Your task to perform on an android device: open device folders in google photos Image 0: 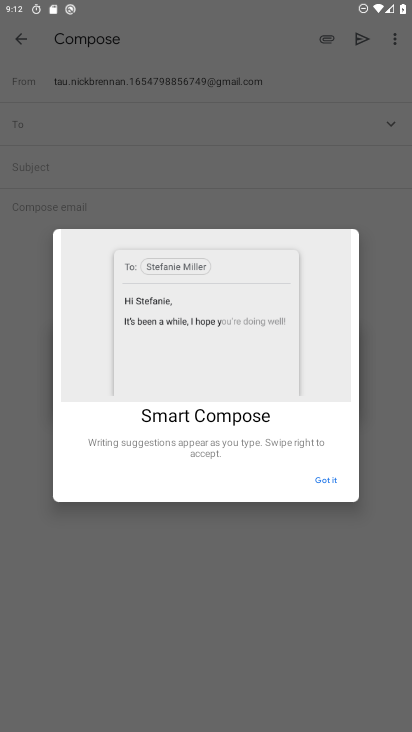
Step 0: press home button
Your task to perform on an android device: open device folders in google photos Image 1: 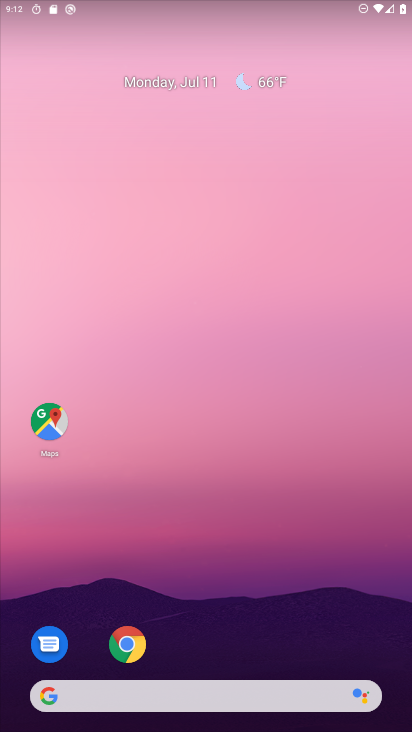
Step 1: drag from (261, 613) to (229, 84)
Your task to perform on an android device: open device folders in google photos Image 2: 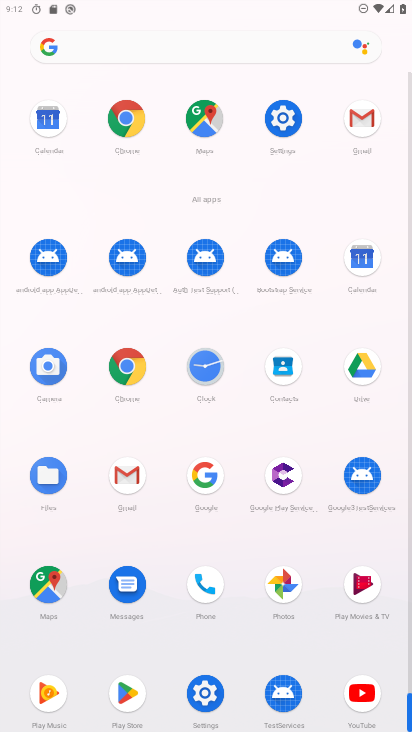
Step 2: click (283, 584)
Your task to perform on an android device: open device folders in google photos Image 3: 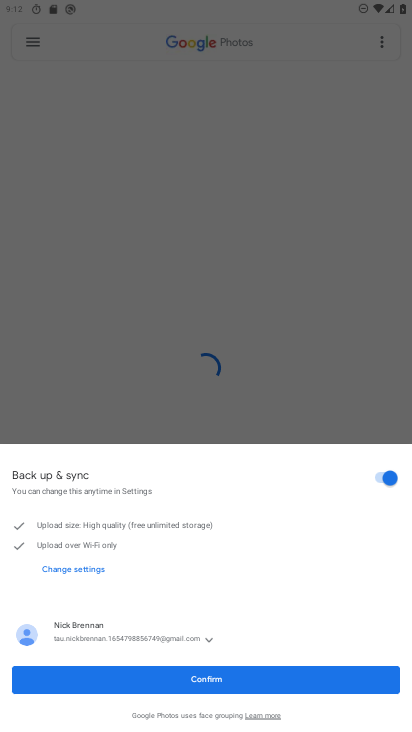
Step 3: click (300, 679)
Your task to perform on an android device: open device folders in google photos Image 4: 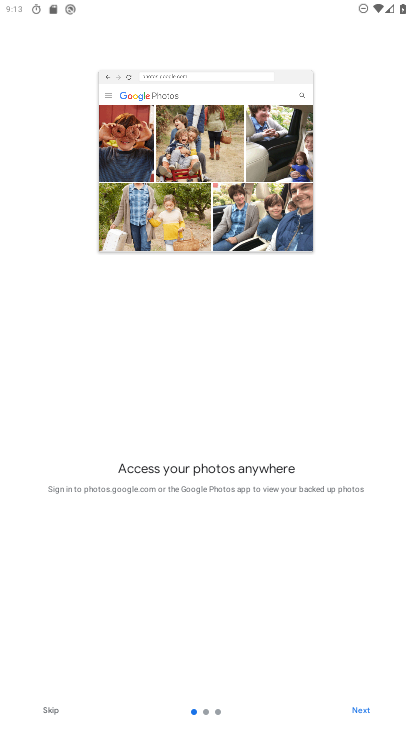
Step 4: click (363, 707)
Your task to perform on an android device: open device folders in google photos Image 5: 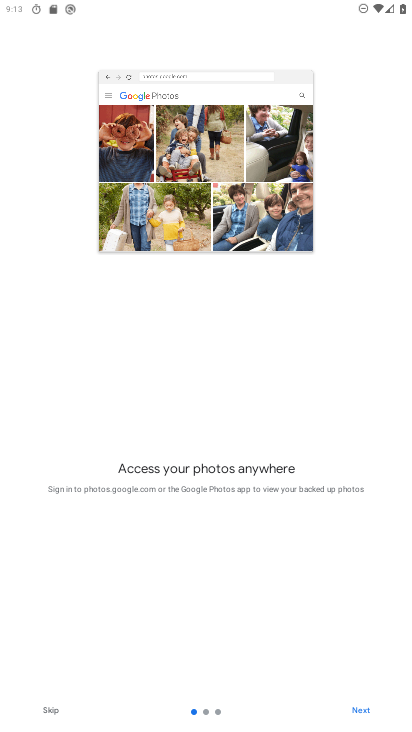
Step 5: click (363, 704)
Your task to perform on an android device: open device folders in google photos Image 6: 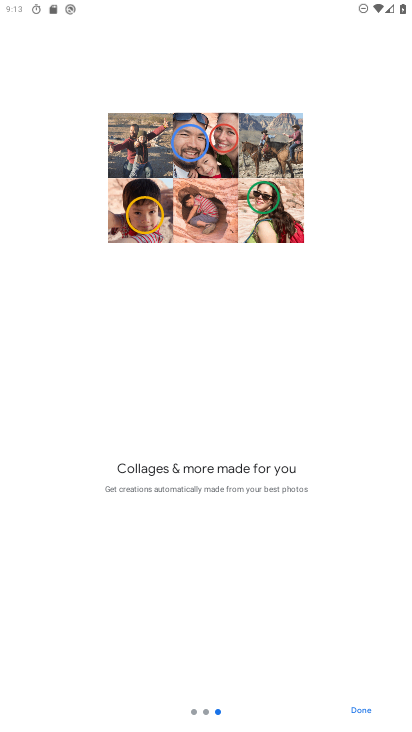
Step 6: click (357, 711)
Your task to perform on an android device: open device folders in google photos Image 7: 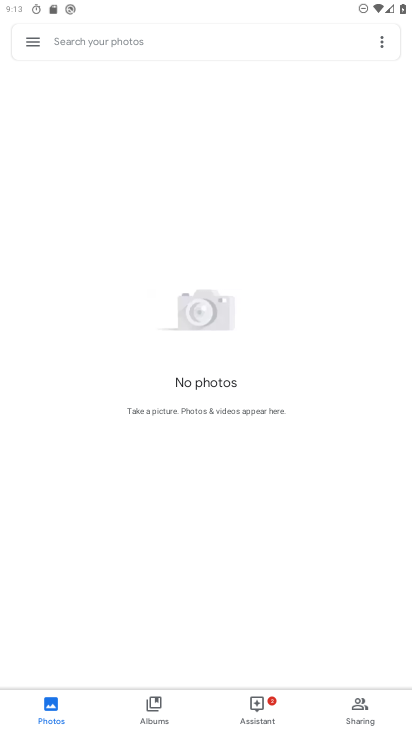
Step 7: click (33, 35)
Your task to perform on an android device: open device folders in google photos Image 8: 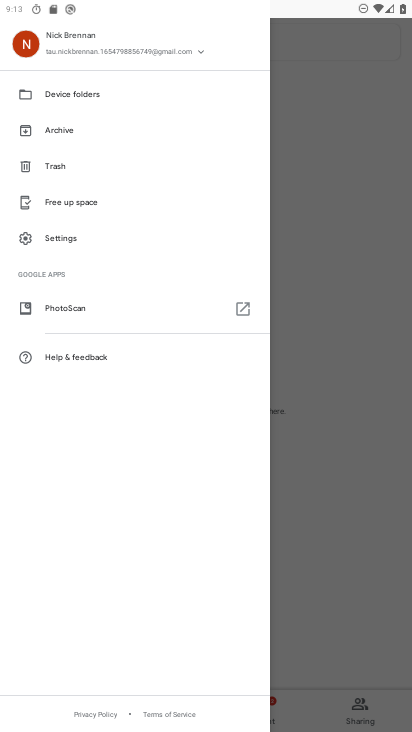
Step 8: click (80, 94)
Your task to perform on an android device: open device folders in google photos Image 9: 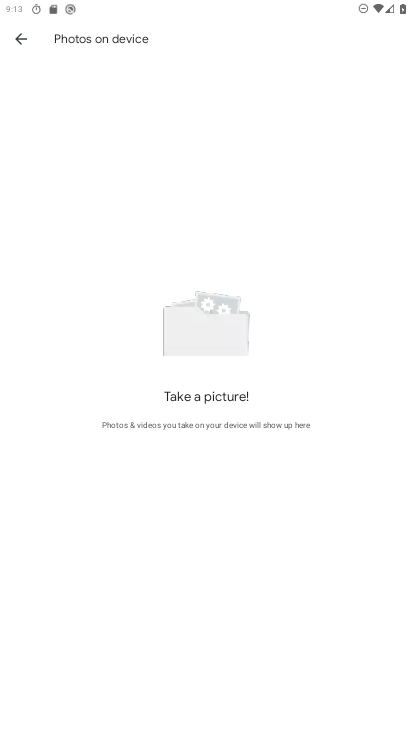
Step 9: task complete